Your task to perform on an android device: toggle notifications settings in the gmail app Image 0: 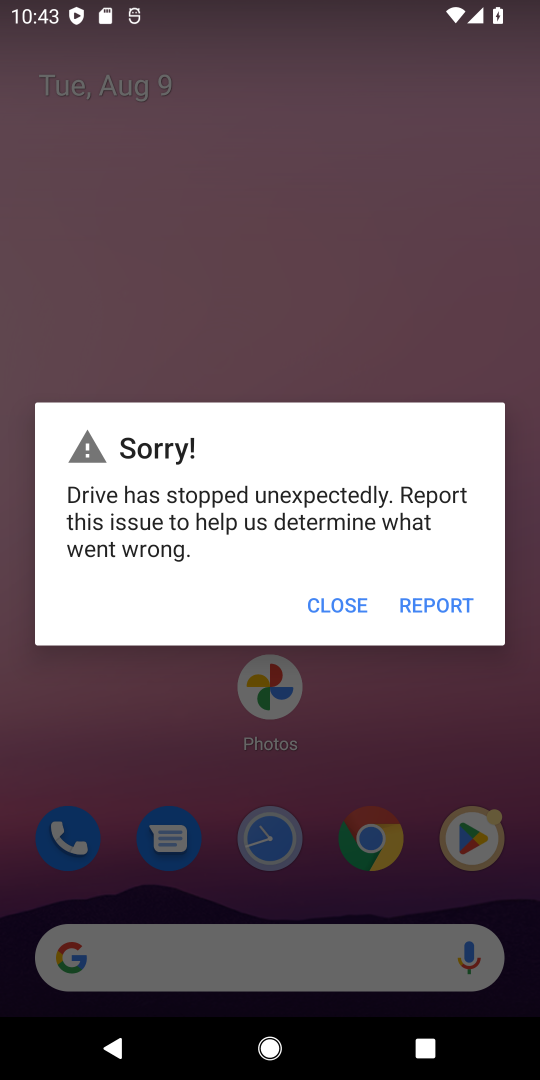
Step 0: click (319, 604)
Your task to perform on an android device: toggle notifications settings in the gmail app Image 1: 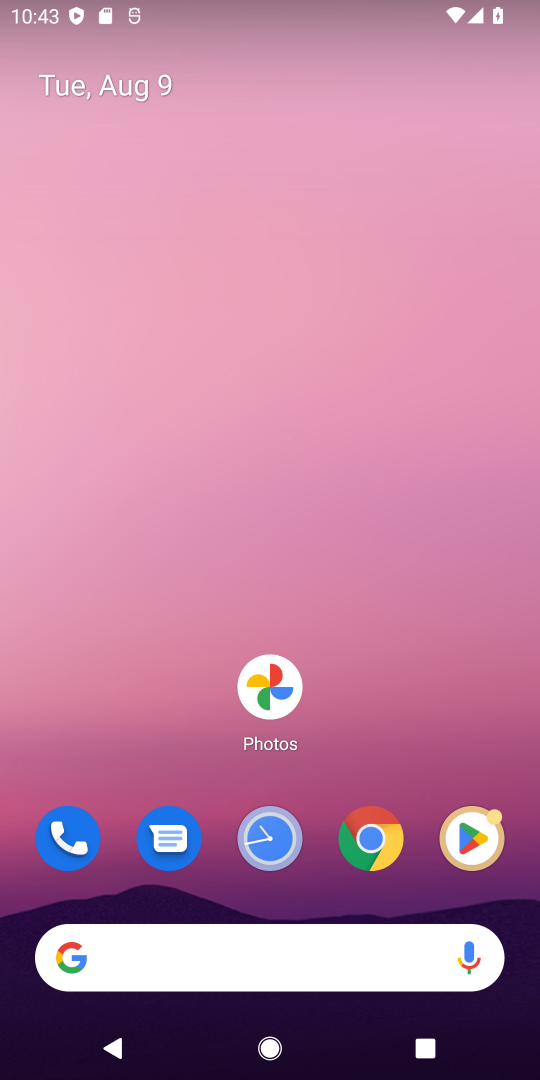
Step 1: drag from (364, 673) to (423, 13)
Your task to perform on an android device: toggle notifications settings in the gmail app Image 2: 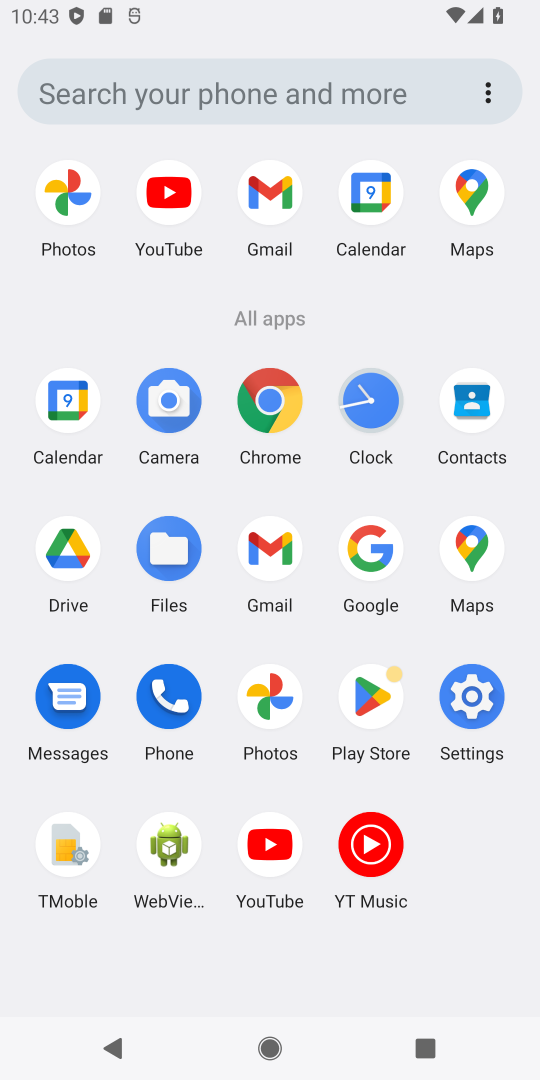
Step 2: click (280, 571)
Your task to perform on an android device: toggle notifications settings in the gmail app Image 3: 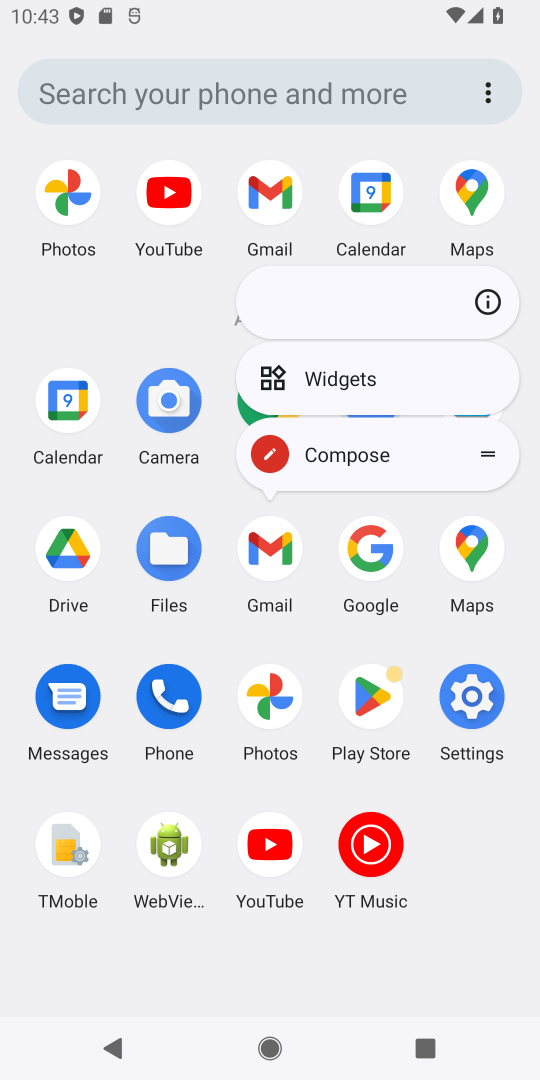
Step 3: click (487, 302)
Your task to perform on an android device: toggle notifications settings in the gmail app Image 4: 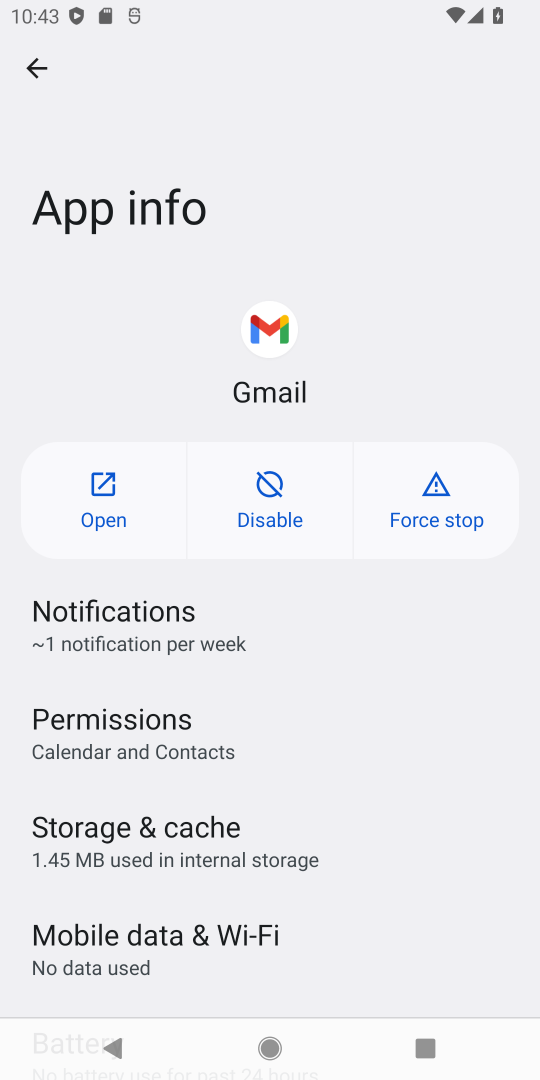
Step 4: click (228, 608)
Your task to perform on an android device: toggle notifications settings in the gmail app Image 5: 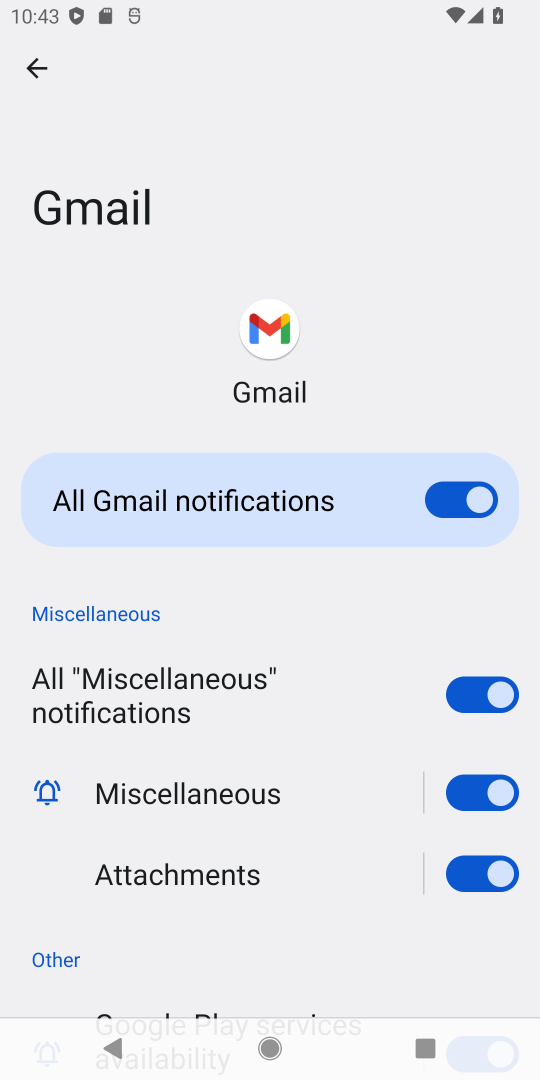
Step 5: click (236, 510)
Your task to perform on an android device: toggle notifications settings in the gmail app Image 6: 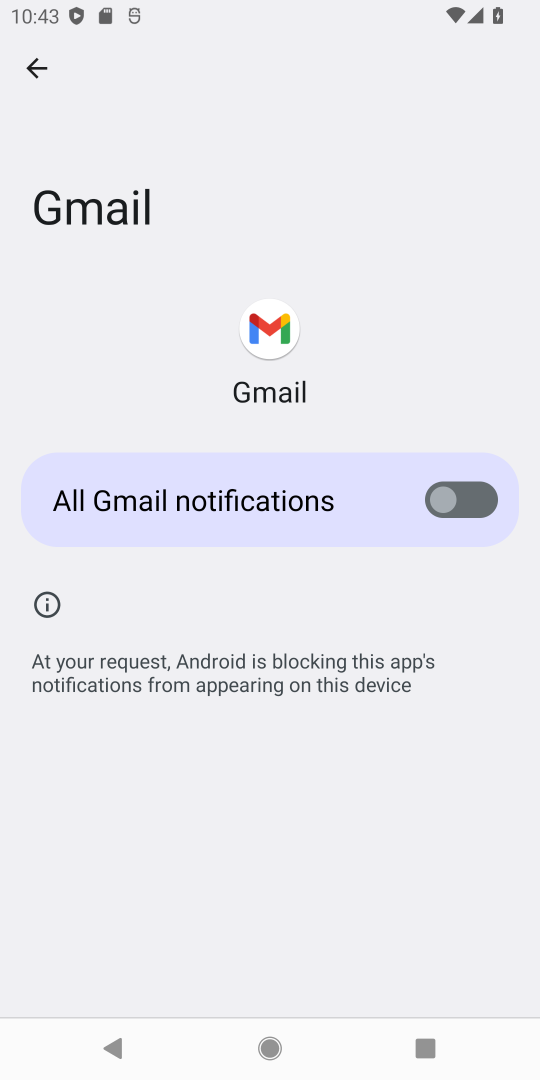
Step 6: task complete